Your task to perform on an android device: Go to Maps Image 0: 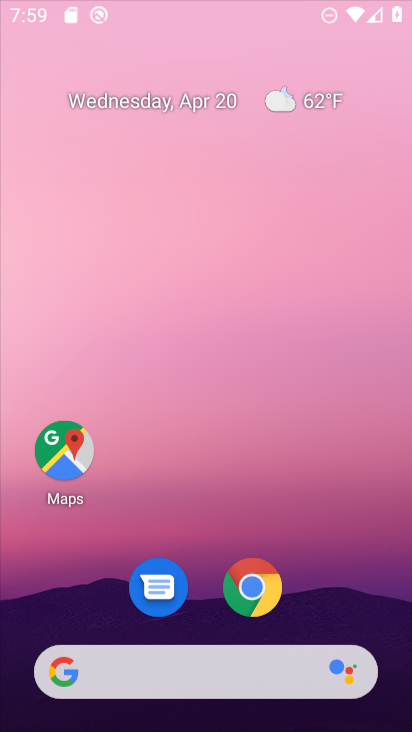
Step 0: drag from (328, 297) to (311, 77)
Your task to perform on an android device: Go to Maps Image 1: 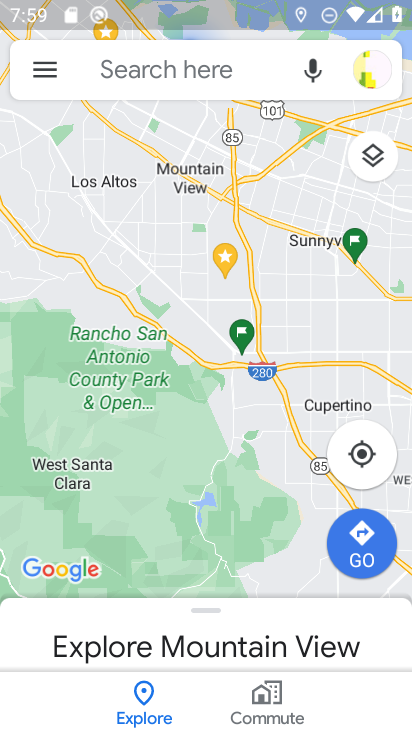
Step 1: task complete